Your task to perform on an android device: change the clock display to analog Image 0: 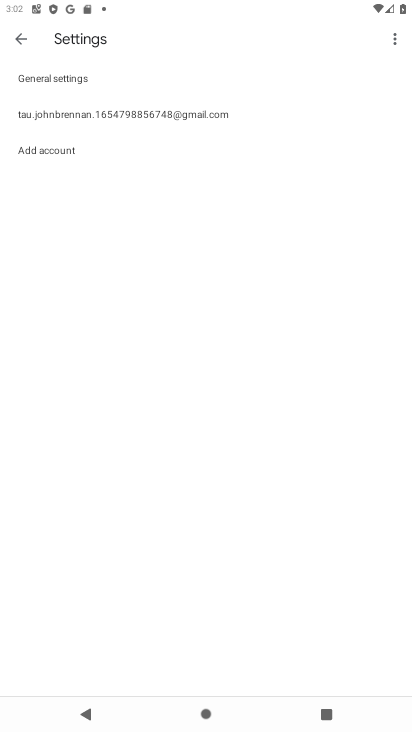
Step 0: press home button
Your task to perform on an android device: change the clock display to analog Image 1: 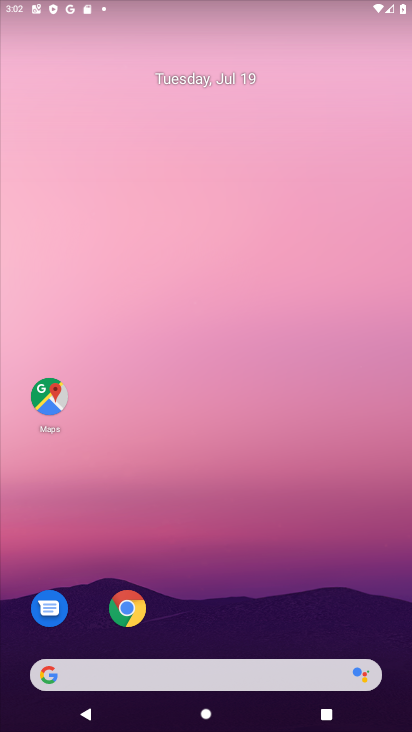
Step 1: drag from (325, 575) to (266, 111)
Your task to perform on an android device: change the clock display to analog Image 2: 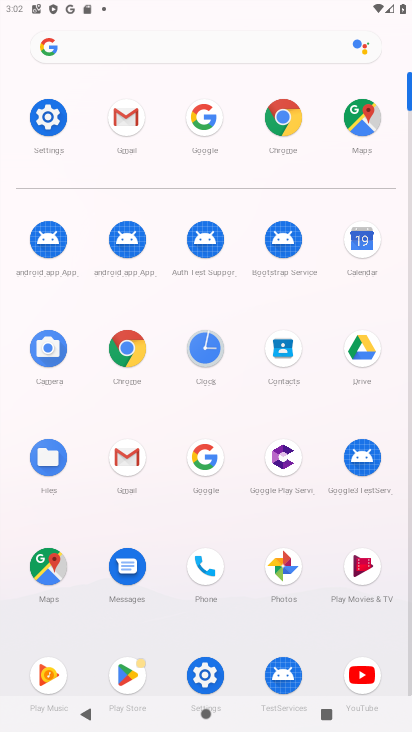
Step 2: click (201, 351)
Your task to perform on an android device: change the clock display to analog Image 3: 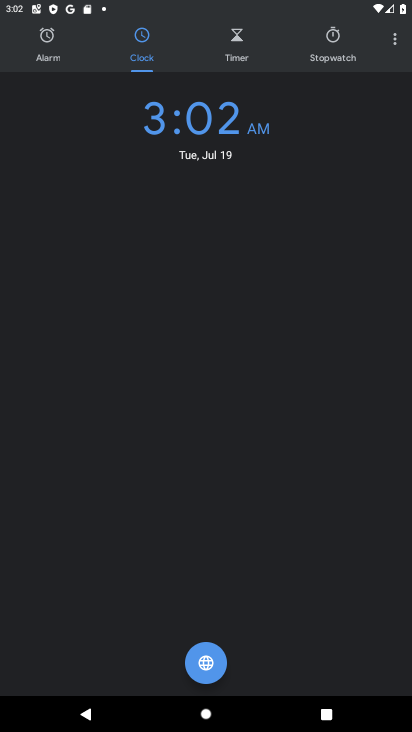
Step 3: click (396, 36)
Your task to perform on an android device: change the clock display to analog Image 4: 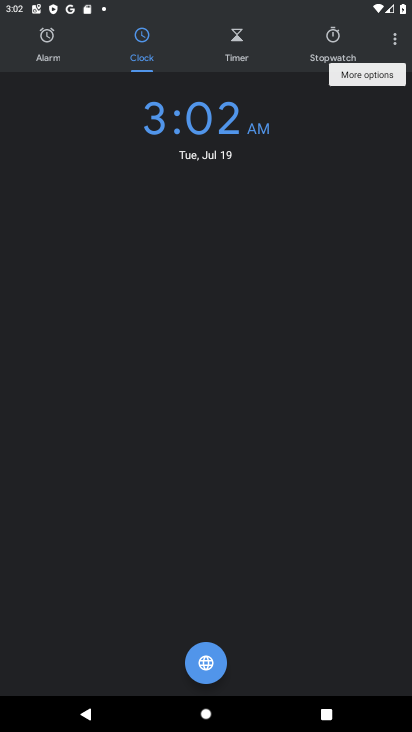
Step 4: click (396, 36)
Your task to perform on an android device: change the clock display to analog Image 5: 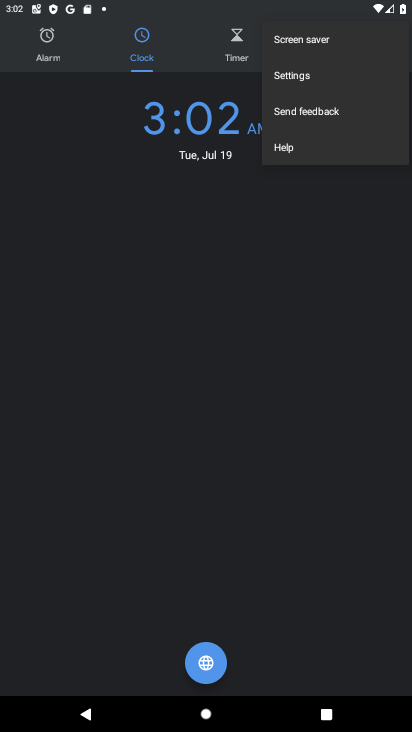
Step 5: click (289, 68)
Your task to perform on an android device: change the clock display to analog Image 6: 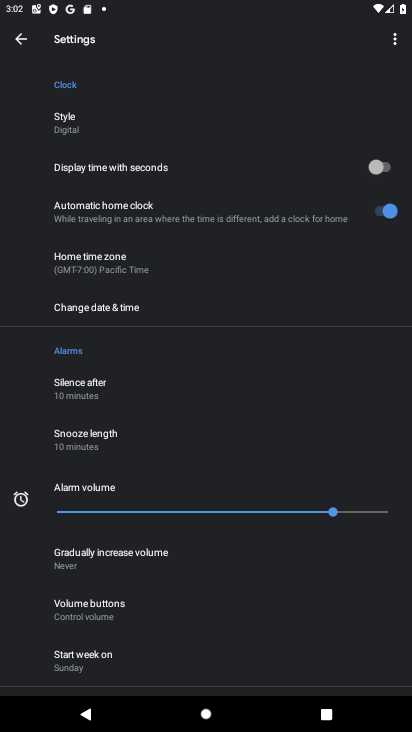
Step 6: click (68, 121)
Your task to perform on an android device: change the clock display to analog Image 7: 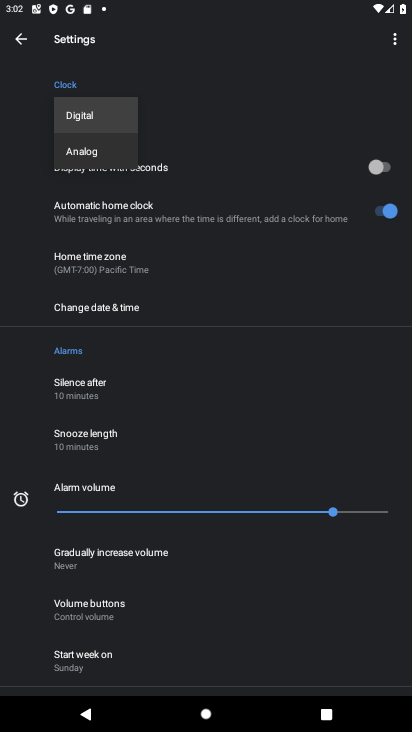
Step 7: click (74, 147)
Your task to perform on an android device: change the clock display to analog Image 8: 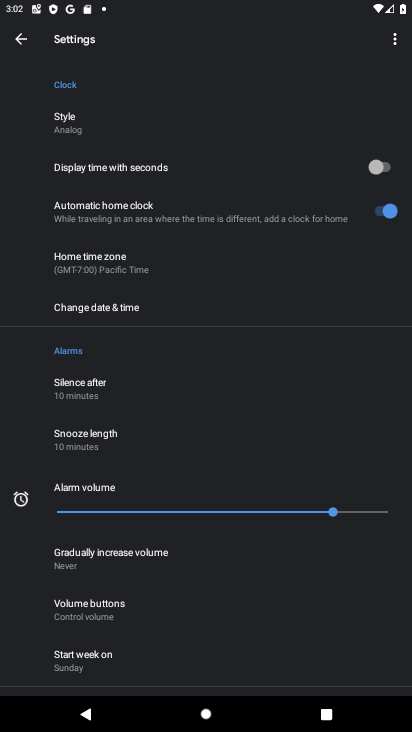
Step 8: task complete